Your task to perform on an android device: Open network settings Image 0: 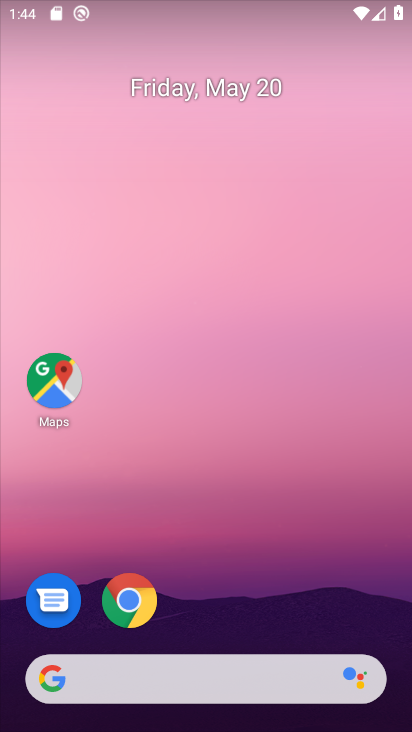
Step 0: drag from (216, 621) to (313, 62)
Your task to perform on an android device: Open network settings Image 1: 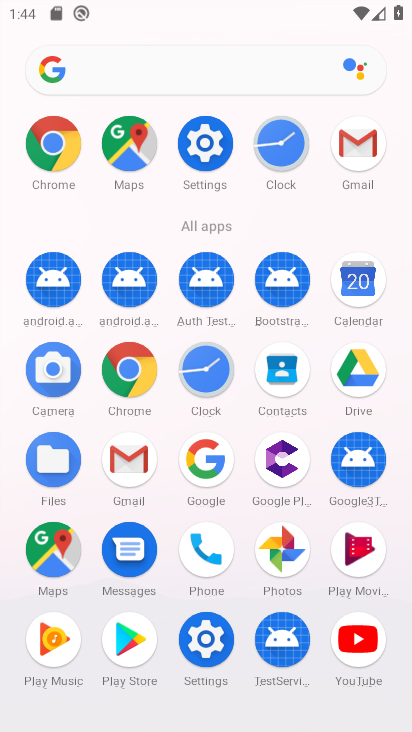
Step 1: click (230, 179)
Your task to perform on an android device: Open network settings Image 2: 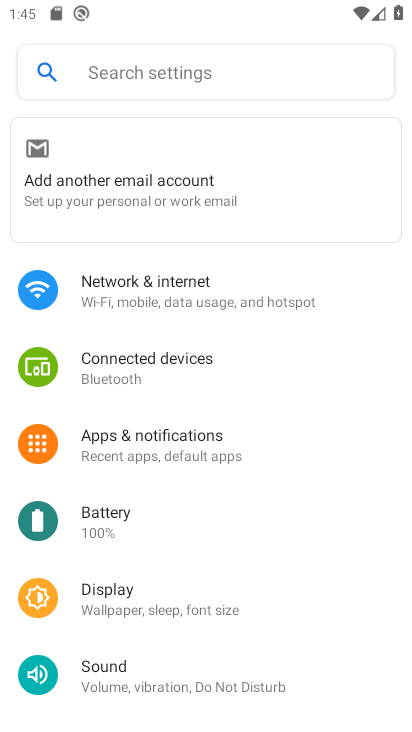
Step 2: click (164, 299)
Your task to perform on an android device: Open network settings Image 3: 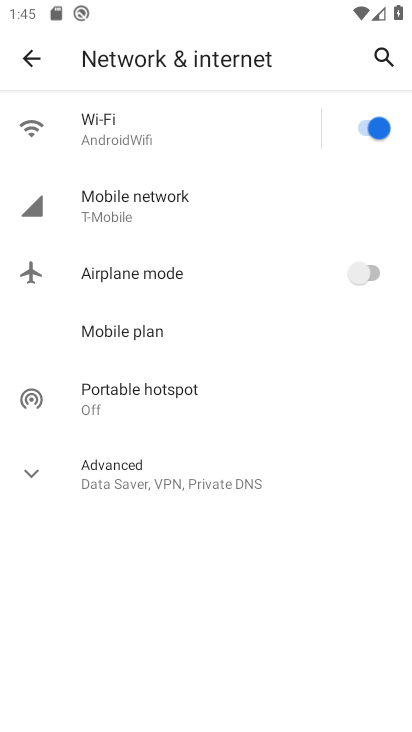
Step 3: task complete